Your task to perform on an android device: Go to Reddit.com Image 0: 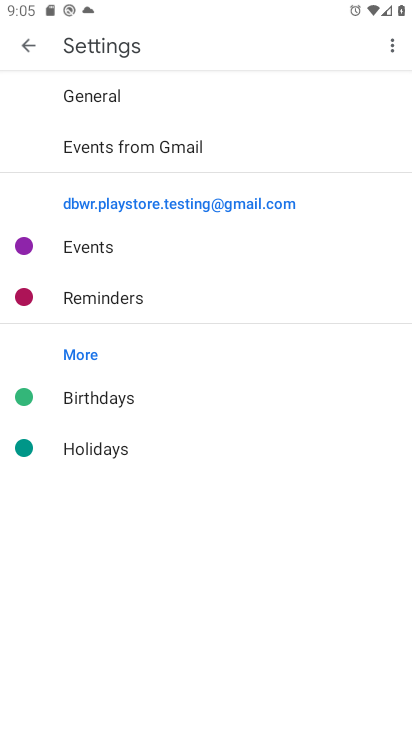
Step 0: press home button
Your task to perform on an android device: Go to Reddit.com Image 1: 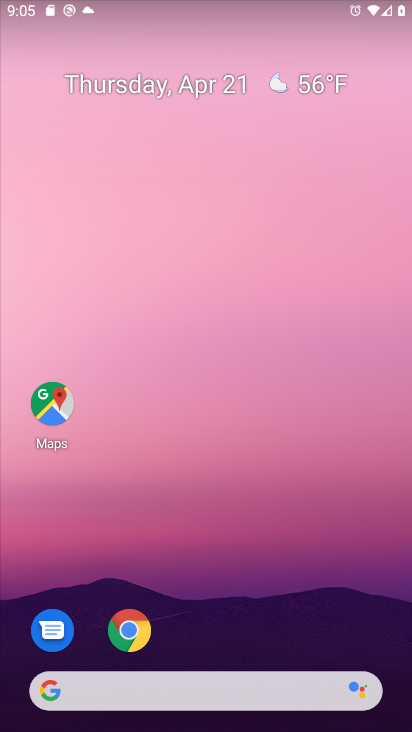
Step 1: click (122, 616)
Your task to perform on an android device: Go to Reddit.com Image 2: 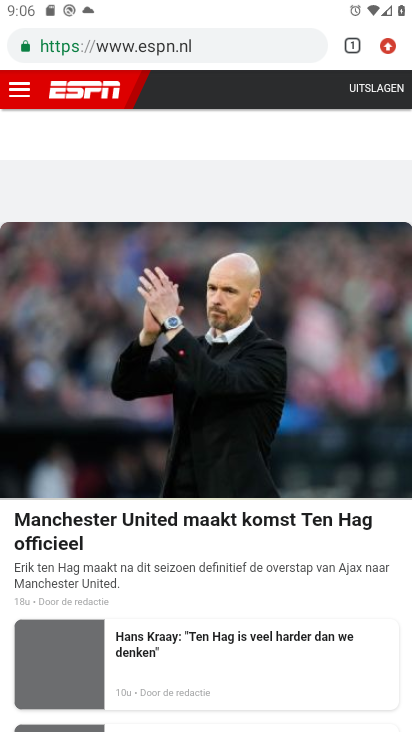
Step 2: click (243, 38)
Your task to perform on an android device: Go to Reddit.com Image 3: 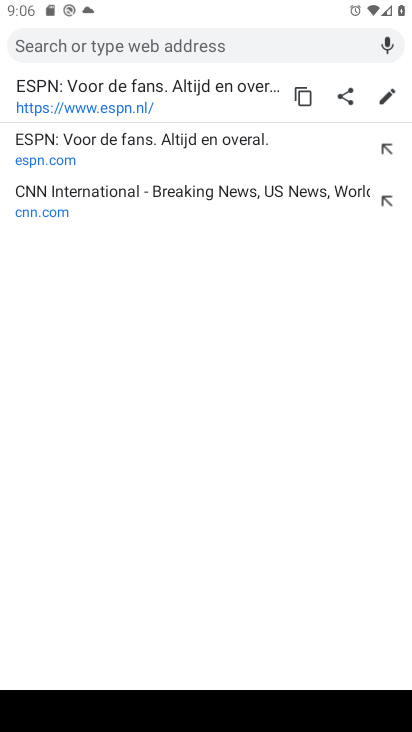
Step 3: type "reddit.com"
Your task to perform on an android device: Go to Reddit.com Image 4: 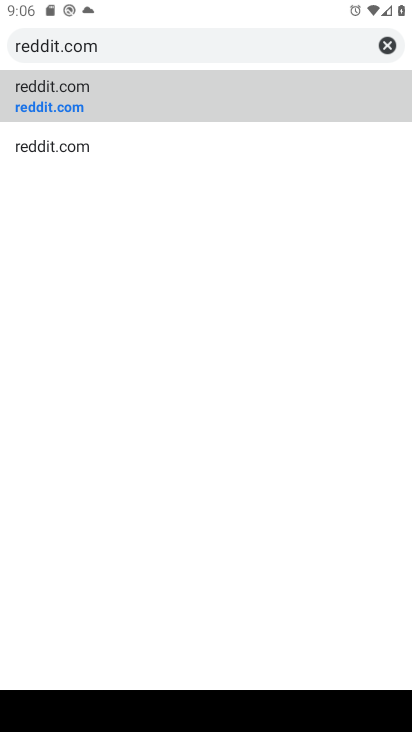
Step 4: click (54, 88)
Your task to perform on an android device: Go to Reddit.com Image 5: 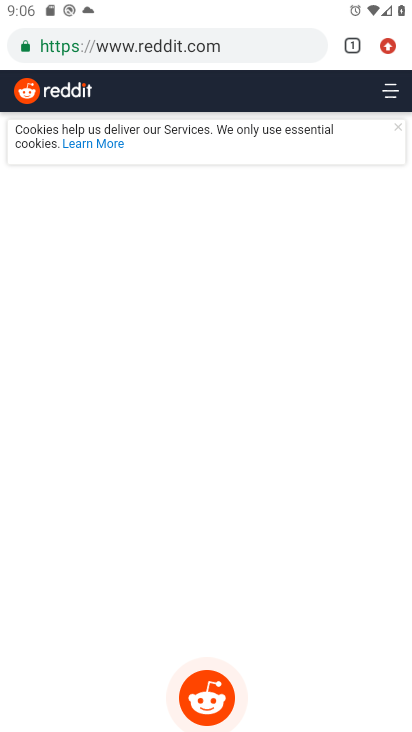
Step 5: task complete